Your task to perform on an android device: check google app version Image 0: 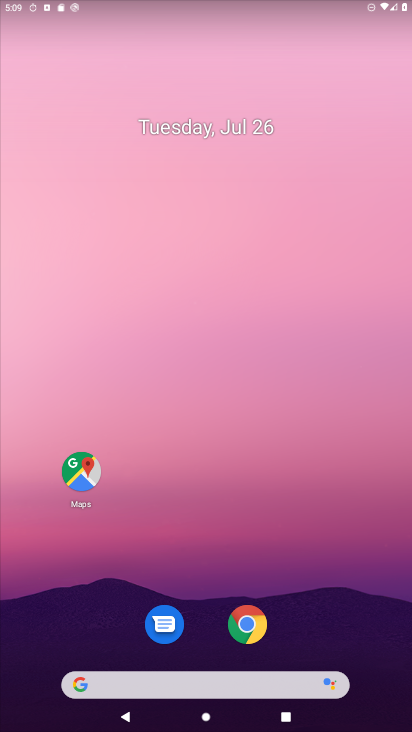
Step 0: drag from (121, 673) to (208, 66)
Your task to perform on an android device: check google app version Image 1: 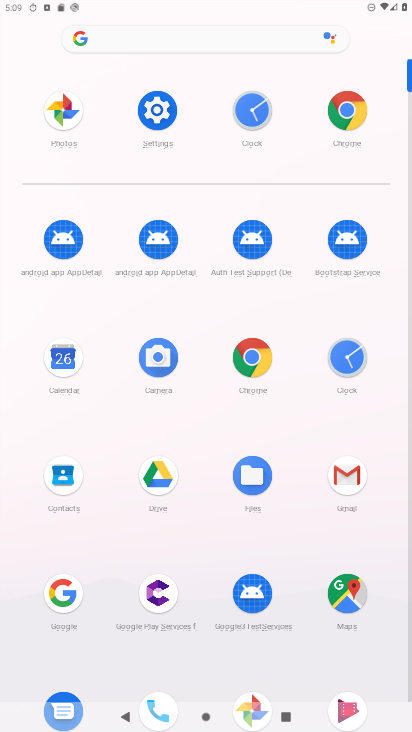
Step 1: click (265, 358)
Your task to perform on an android device: check google app version Image 2: 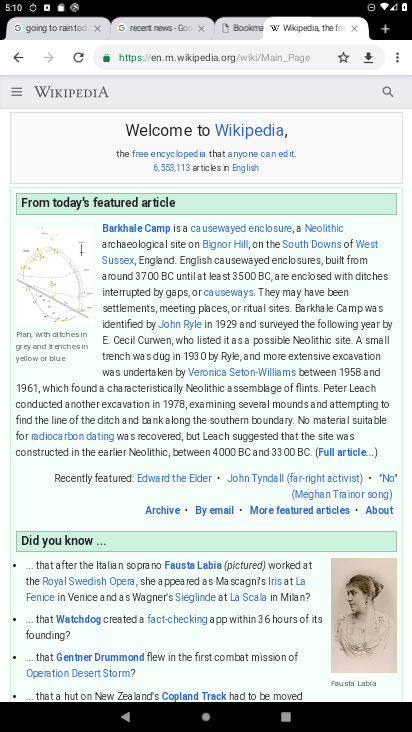
Step 2: click (401, 54)
Your task to perform on an android device: check google app version Image 3: 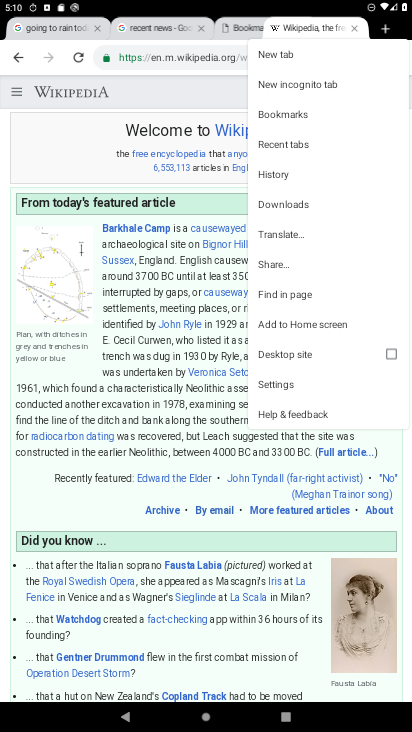
Step 3: click (306, 403)
Your task to perform on an android device: check google app version Image 4: 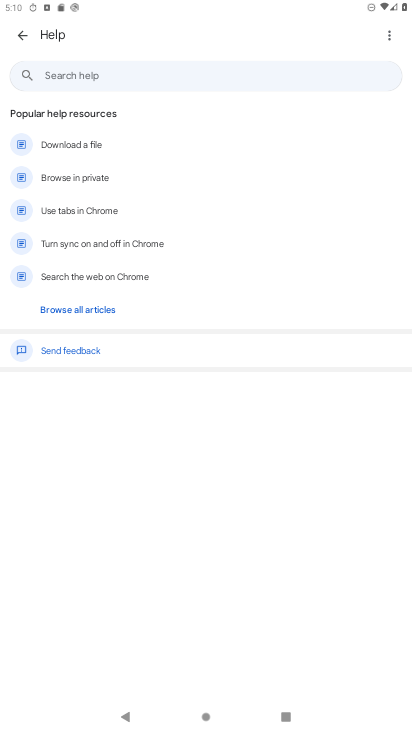
Step 4: click (397, 31)
Your task to perform on an android device: check google app version Image 5: 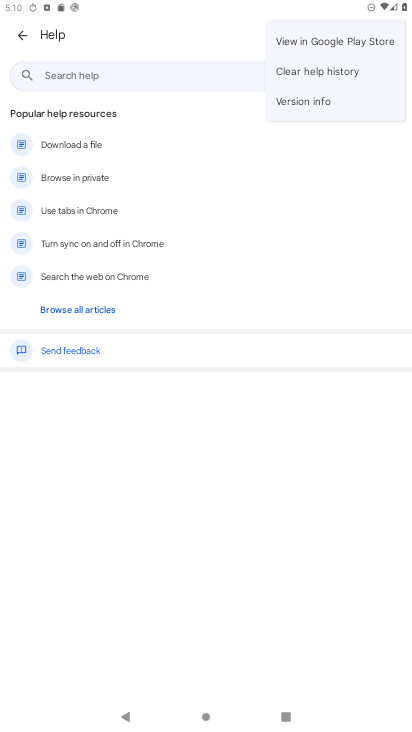
Step 5: click (315, 108)
Your task to perform on an android device: check google app version Image 6: 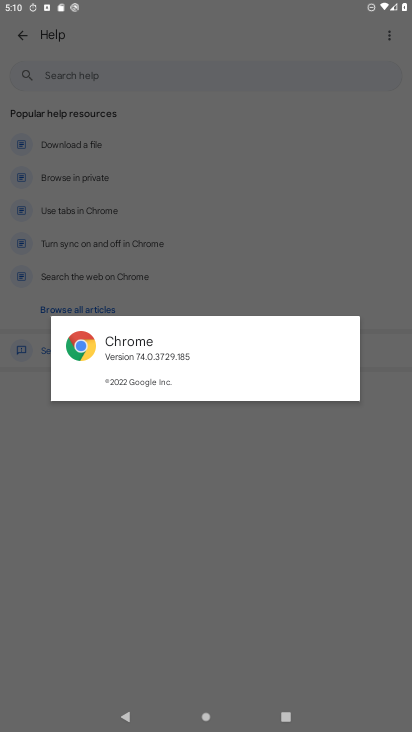
Step 6: task complete